Your task to perform on an android device: Open my contact list Image 0: 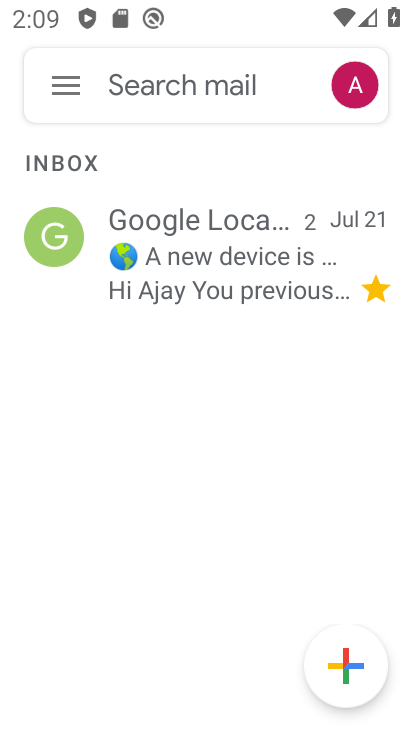
Step 0: drag from (121, 603) to (186, 27)
Your task to perform on an android device: Open my contact list Image 1: 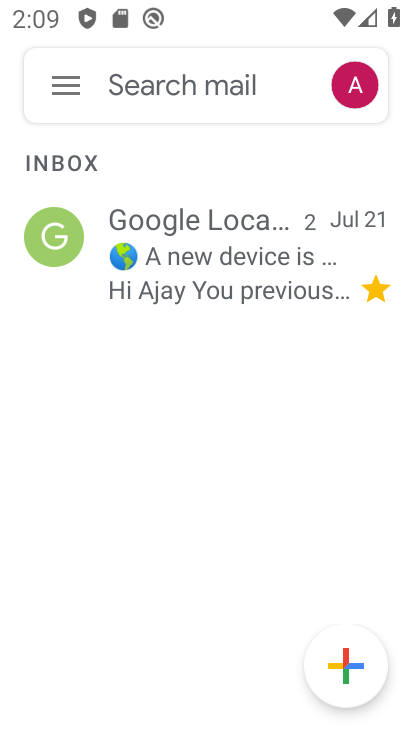
Step 1: press back button
Your task to perform on an android device: Open my contact list Image 2: 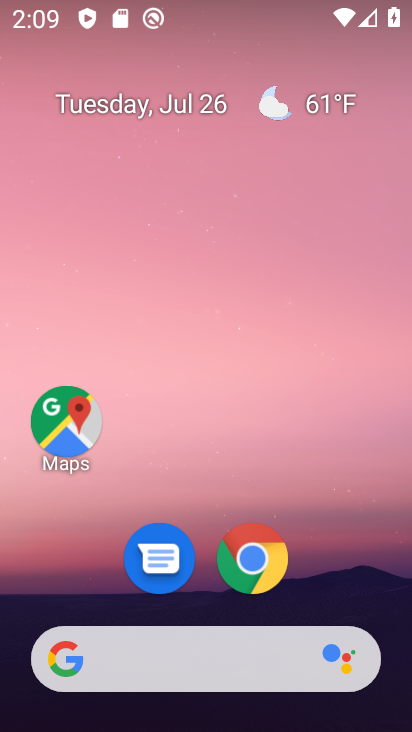
Step 2: drag from (110, 597) to (144, 1)
Your task to perform on an android device: Open my contact list Image 3: 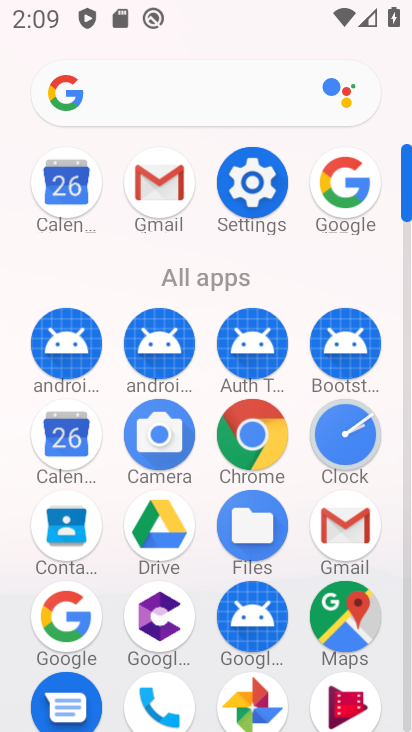
Step 3: click (61, 522)
Your task to perform on an android device: Open my contact list Image 4: 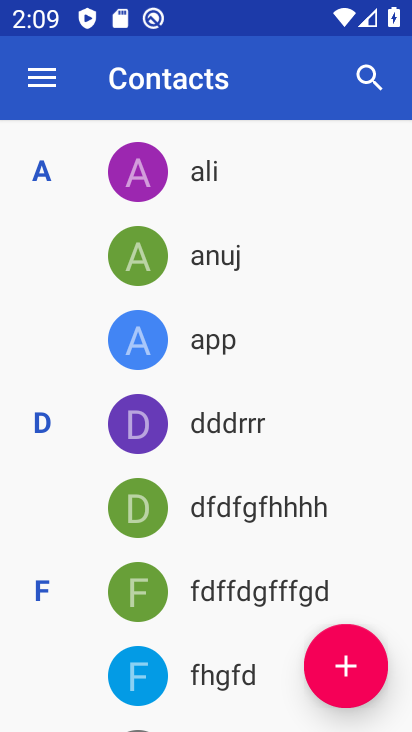
Step 4: task complete